Your task to perform on an android device: read, delete, or share a saved page in the chrome app Image 0: 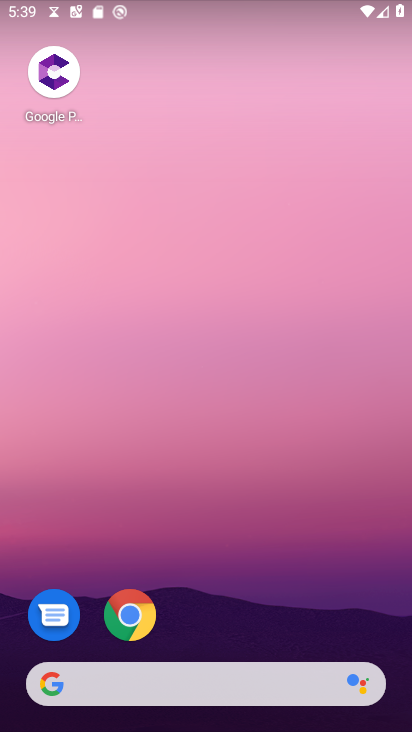
Step 0: drag from (208, 577) to (285, 12)
Your task to perform on an android device: read, delete, or share a saved page in the chrome app Image 1: 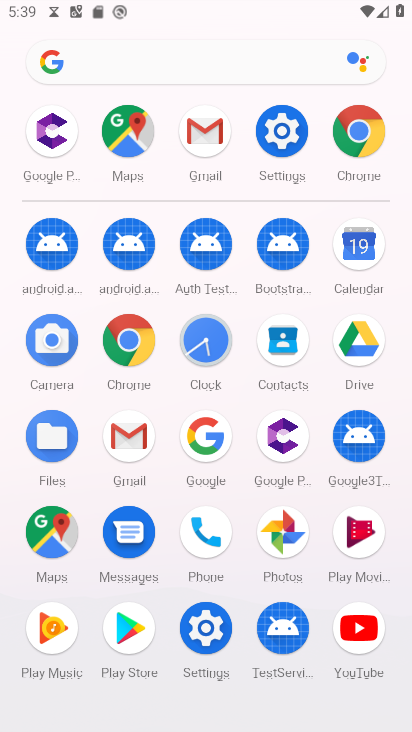
Step 1: click (132, 344)
Your task to perform on an android device: read, delete, or share a saved page in the chrome app Image 2: 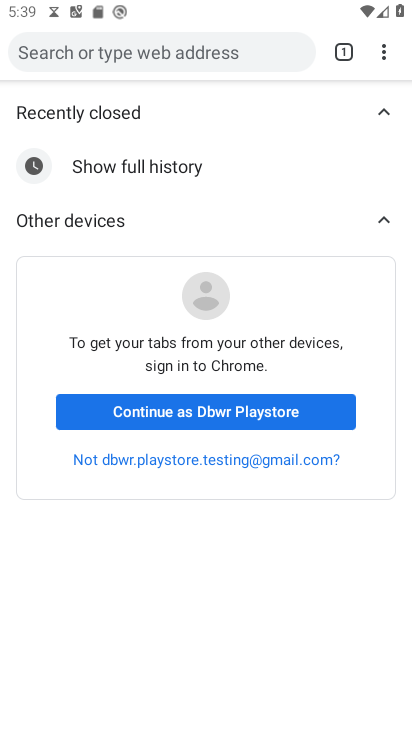
Step 2: click (372, 48)
Your task to perform on an android device: read, delete, or share a saved page in the chrome app Image 3: 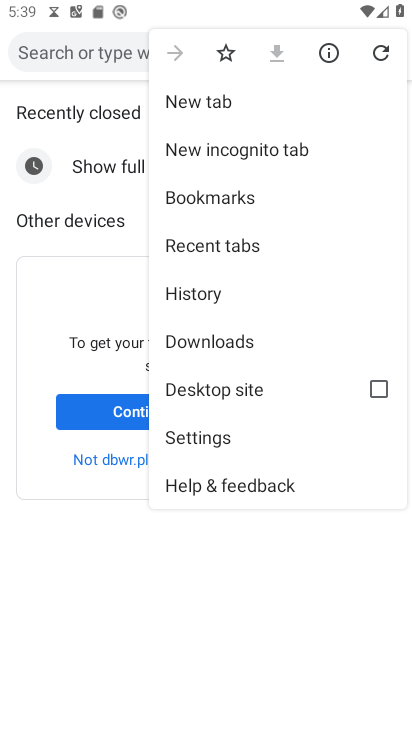
Step 3: click (211, 343)
Your task to perform on an android device: read, delete, or share a saved page in the chrome app Image 4: 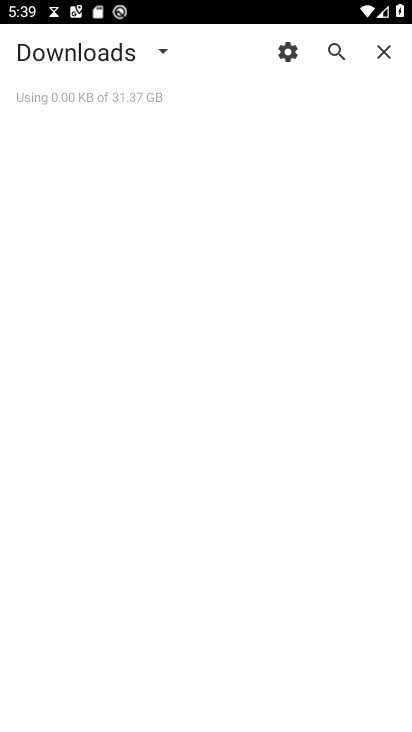
Step 4: task complete